Your task to perform on an android device: open sync settings in chrome Image 0: 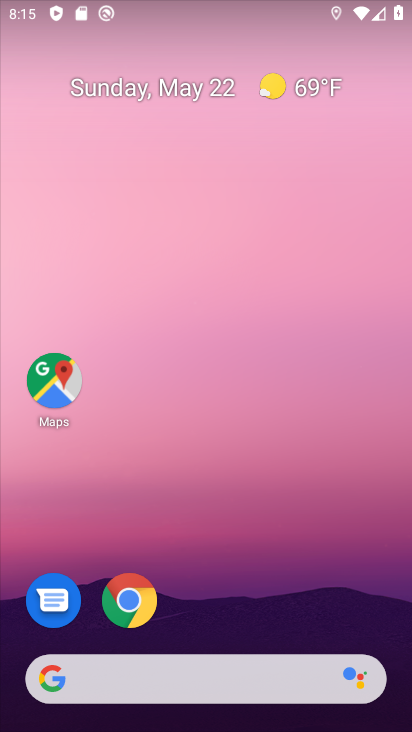
Step 0: click (124, 599)
Your task to perform on an android device: open sync settings in chrome Image 1: 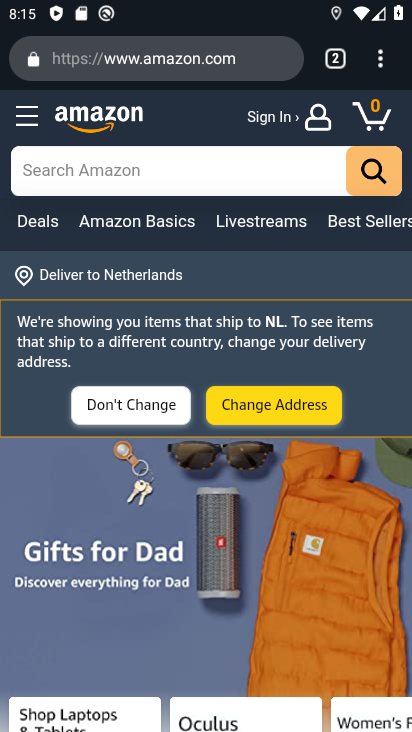
Step 1: click (374, 61)
Your task to perform on an android device: open sync settings in chrome Image 2: 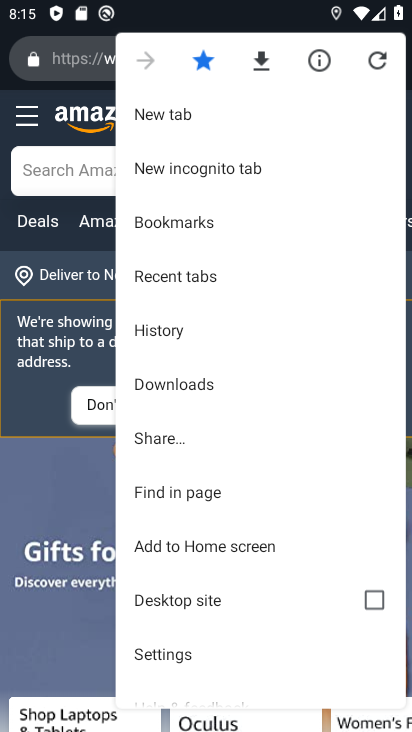
Step 2: click (185, 646)
Your task to perform on an android device: open sync settings in chrome Image 3: 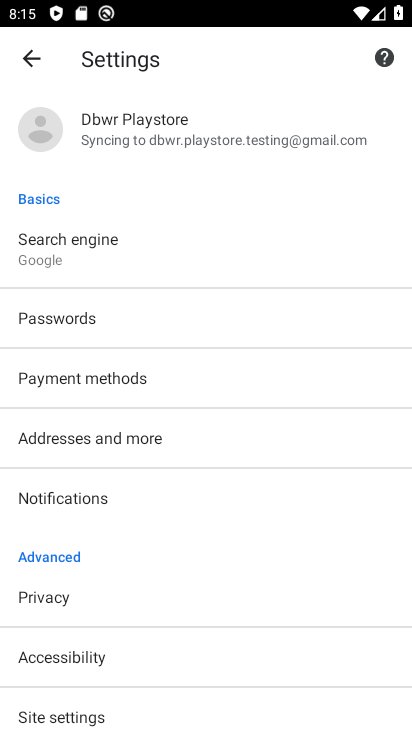
Step 3: click (87, 709)
Your task to perform on an android device: open sync settings in chrome Image 4: 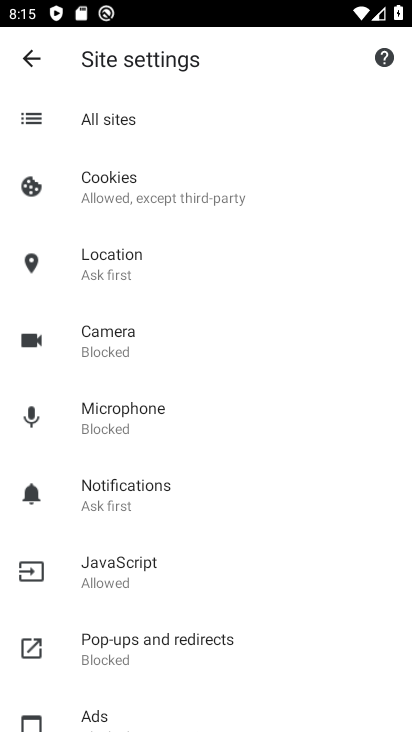
Step 4: drag from (344, 494) to (398, 161)
Your task to perform on an android device: open sync settings in chrome Image 5: 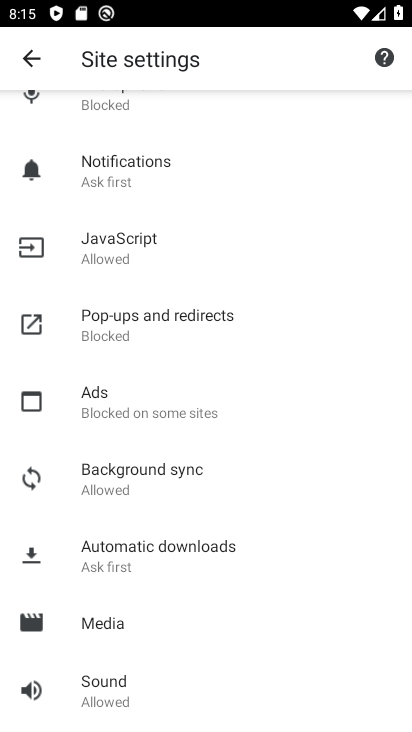
Step 5: click (113, 478)
Your task to perform on an android device: open sync settings in chrome Image 6: 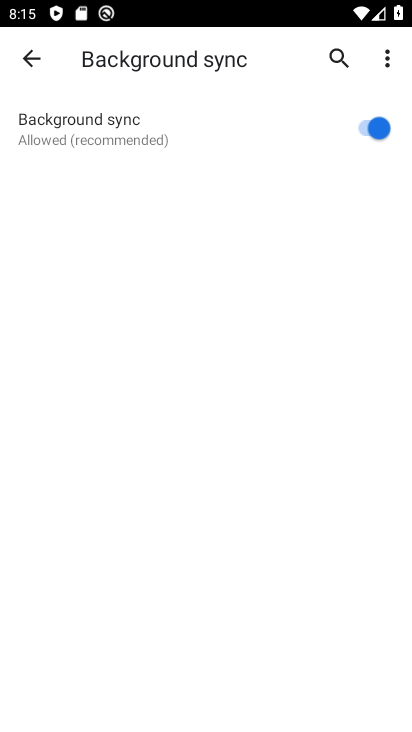
Step 6: task complete